Your task to perform on an android device: turn off location history Image 0: 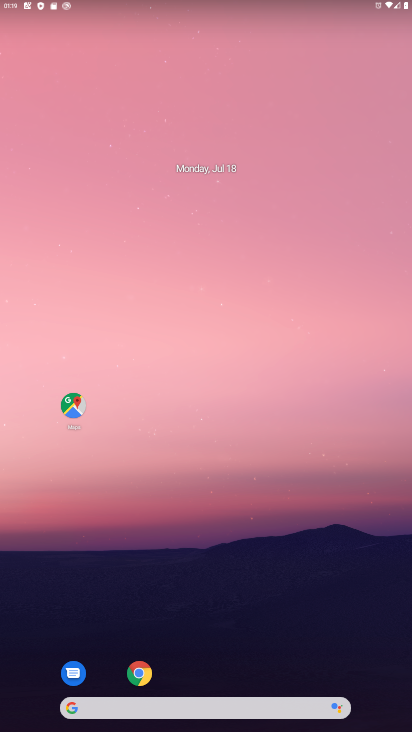
Step 0: drag from (283, 642) to (323, 0)
Your task to perform on an android device: turn off location history Image 1: 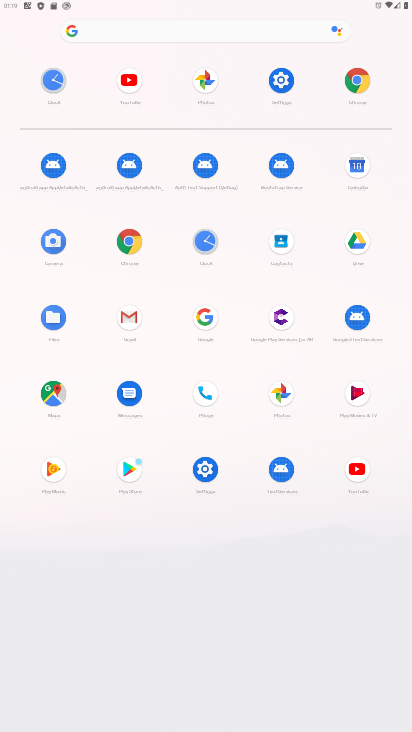
Step 1: click (207, 494)
Your task to perform on an android device: turn off location history Image 2: 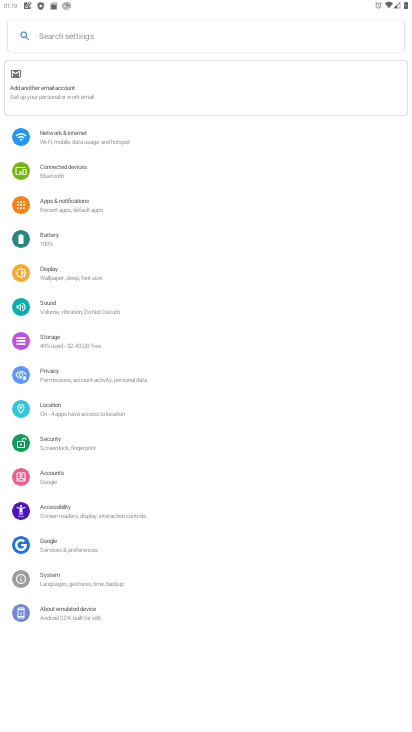
Step 2: click (78, 412)
Your task to perform on an android device: turn off location history Image 3: 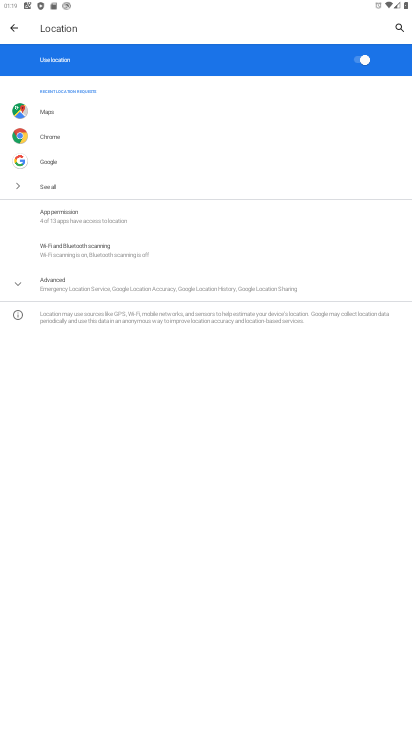
Step 3: click (78, 276)
Your task to perform on an android device: turn off location history Image 4: 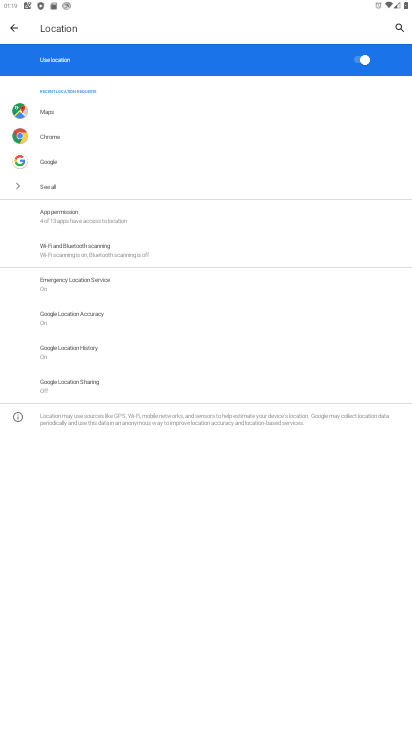
Step 4: click (141, 348)
Your task to perform on an android device: turn off location history Image 5: 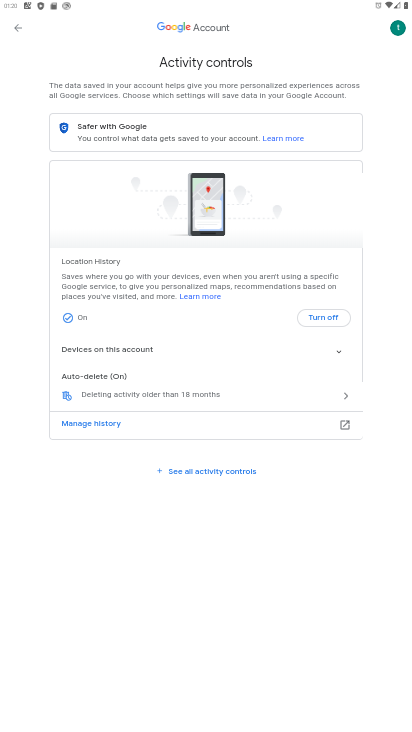
Step 5: task complete